Your task to perform on an android device: find which apps use the phone's location Image 0: 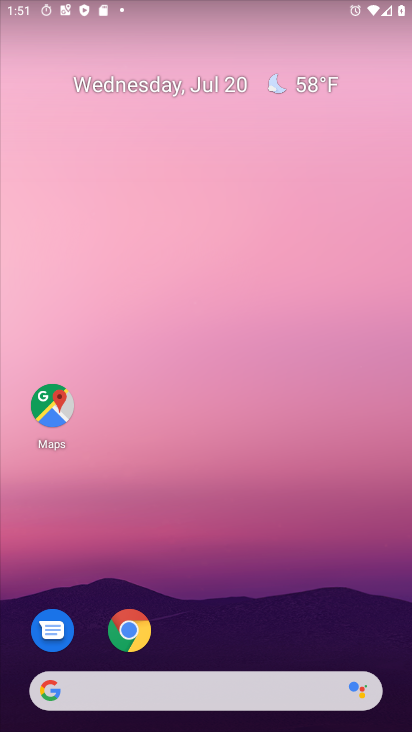
Step 0: drag from (179, 693) to (357, 1)
Your task to perform on an android device: find which apps use the phone's location Image 1: 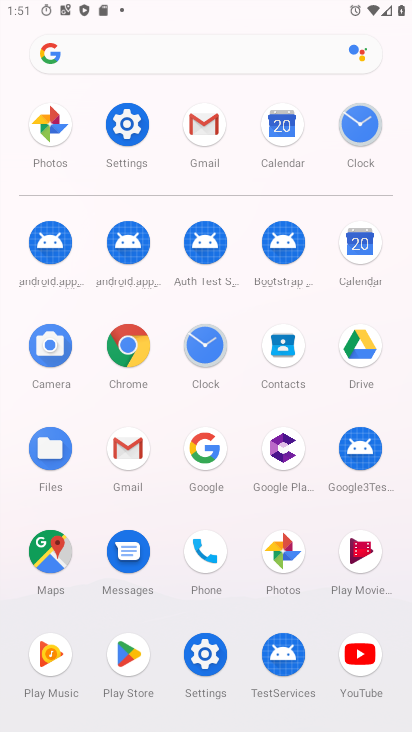
Step 1: click (126, 117)
Your task to perform on an android device: find which apps use the phone's location Image 2: 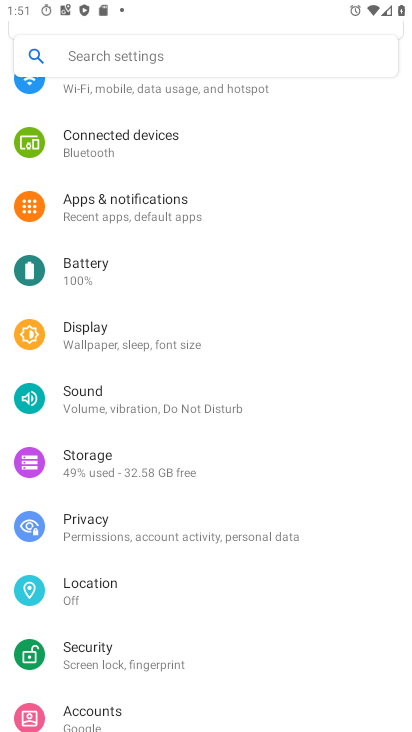
Step 2: click (90, 588)
Your task to perform on an android device: find which apps use the phone's location Image 3: 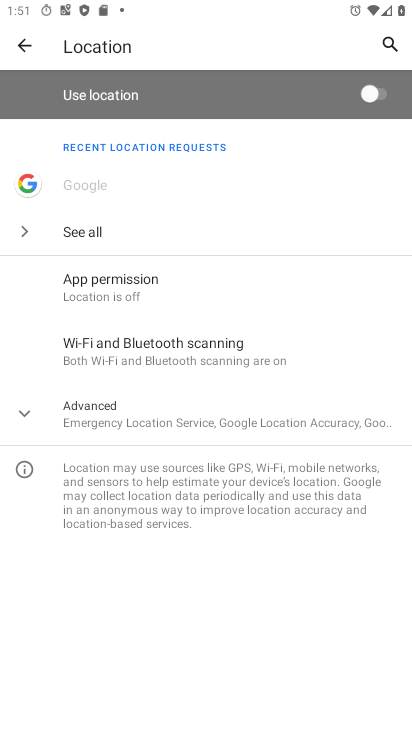
Step 3: click (131, 290)
Your task to perform on an android device: find which apps use the phone's location Image 4: 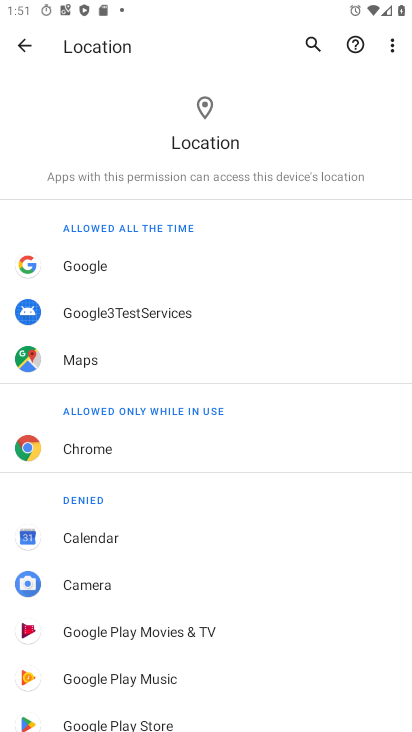
Step 4: drag from (235, 620) to (403, 158)
Your task to perform on an android device: find which apps use the phone's location Image 5: 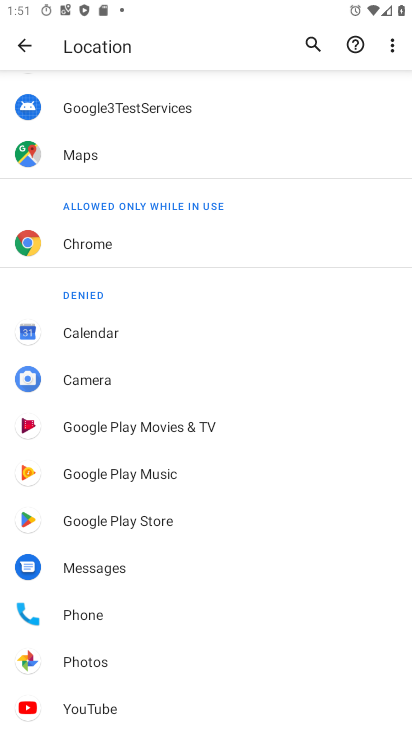
Step 5: click (110, 627)
Your task to perform on an android device: find which apps use the phone's location Image 6: 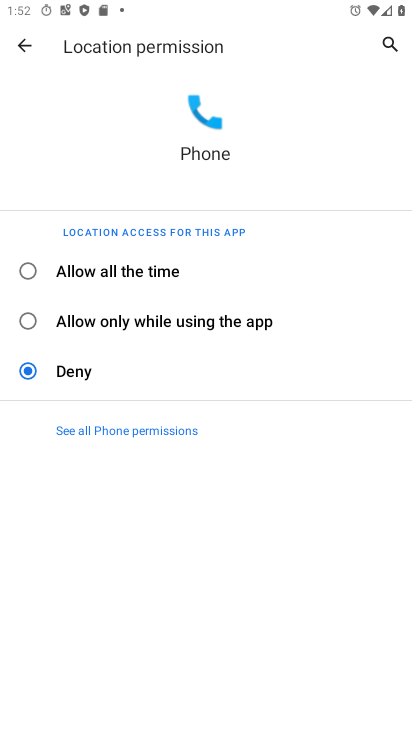
Step 6: task complete